Your task to perform on an android device: Go to Maps Image 0: 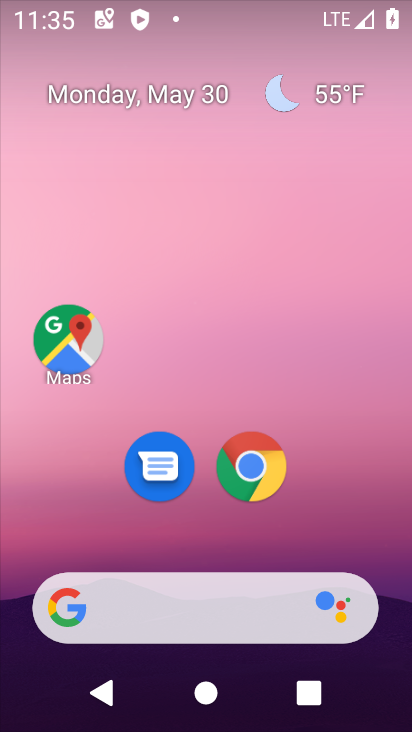
Step 0: click (84, 370)
Your task to perform on an android device: Go to Maps Image 1: 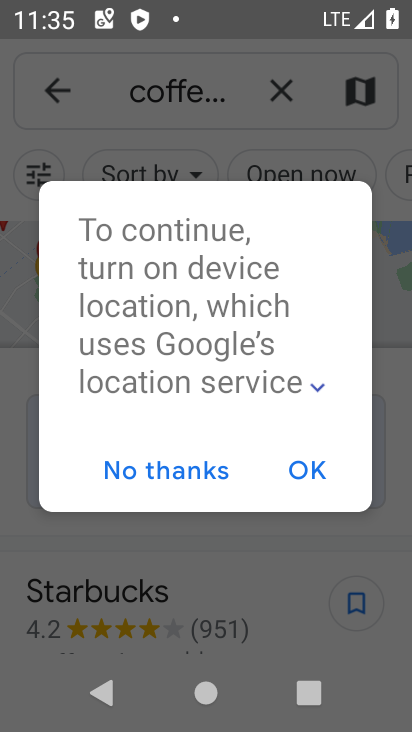
Step 1: click (317, 464)
Your task to perform on an android device: Go to Maps Image 2: 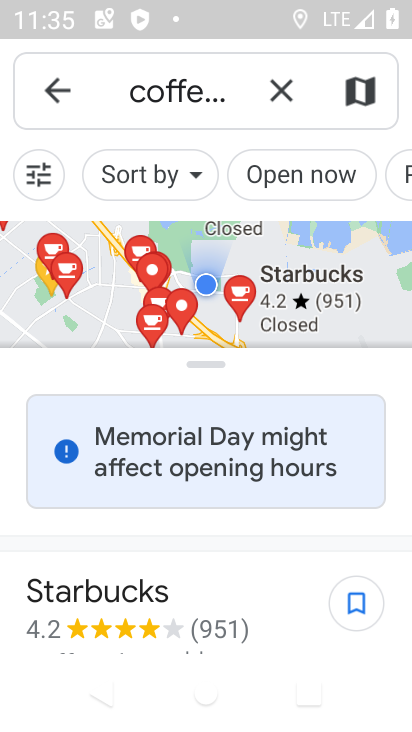
Step 2: task complete